Your task to perform on an android device: check battery use Image 0: 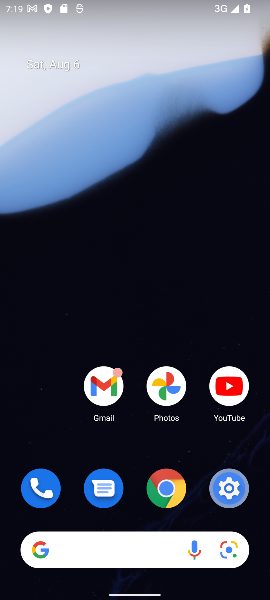
Step 0: drag from (141, 520) to (84, 89)
Your task to perform on an android device: check battery use Image 1: 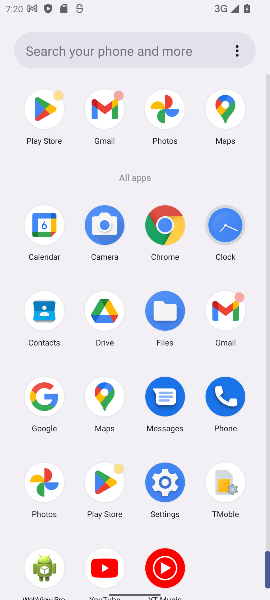
Step 1: click (168, 478)
Your task to perform on an android device: check battery use Image 2: 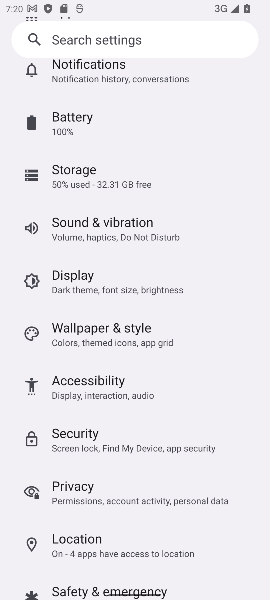
Step 2: click (95, 118)
Your task to perform on an android device: check battery use Image 3: 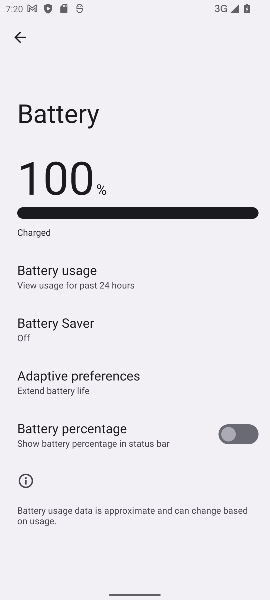
Step 3: click (86, 276)
Your task to perform on an android device: check battery use Image 4: 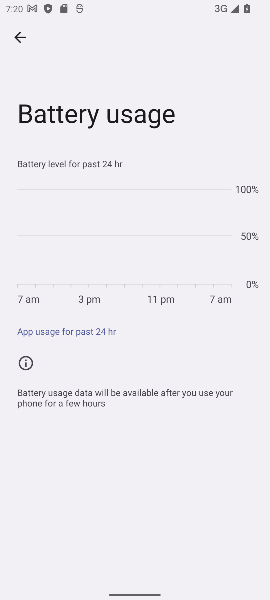
Step 4: task complete